Your task to perform on an android device: When is my next appointment? Image 0: 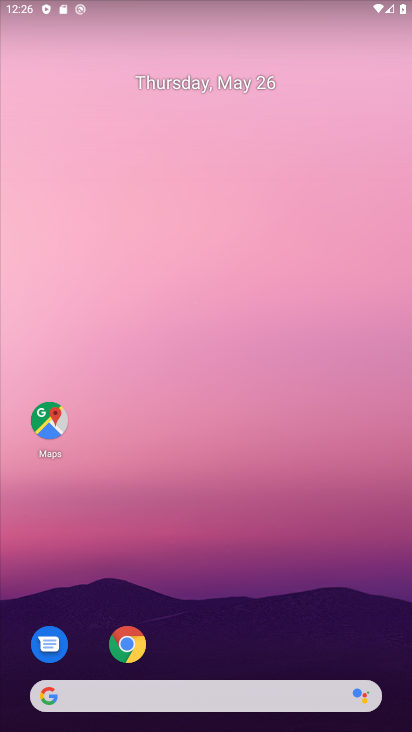
Step 0: drag from (60, 476) to (249, 115)
Your task to perform on an android device: When is my next appointment? Image 1: 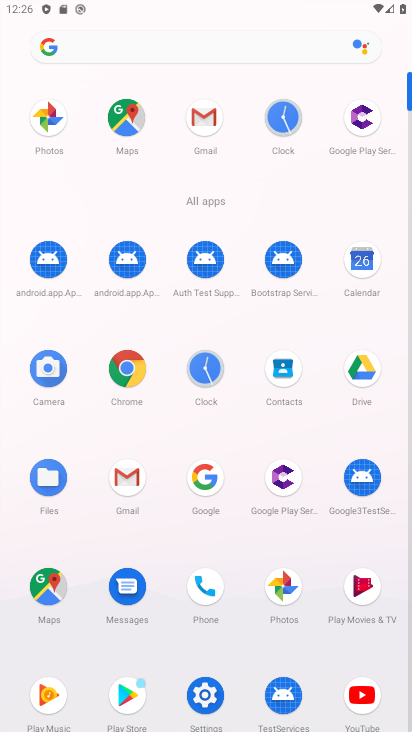
Step 1: click (371, 274)
Your task to perform on an android device: When is my next appointment? Image 2: 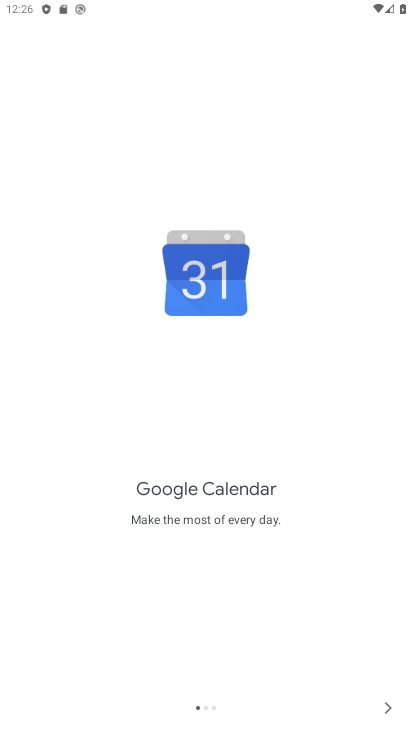
Step 2: click (387, 708)
Your task to perform on an android device: When is my next appointment? Image 3: 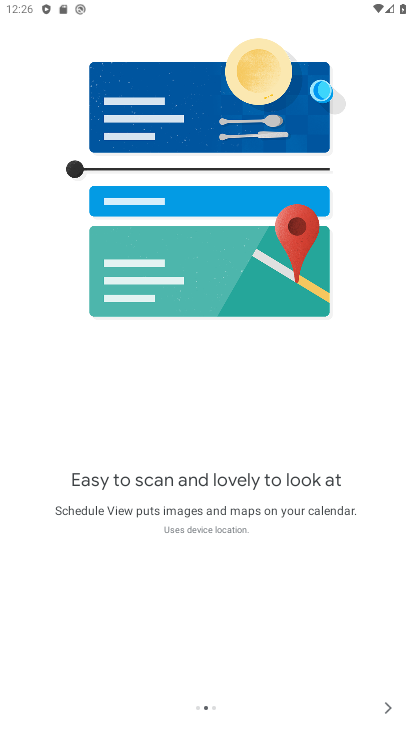
Step 3: click (387, 707)
Your task to perform on an android device: When is my next appointment? Image 4: 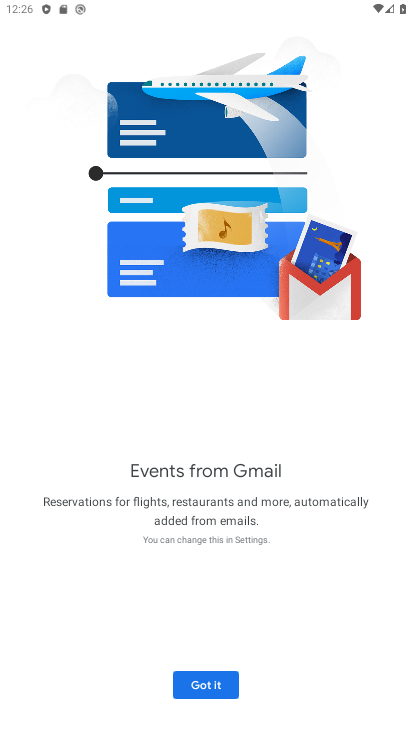
Step 4: click (214, 686)
Your task to perform on an android device: When is my next appointment? Image 5: 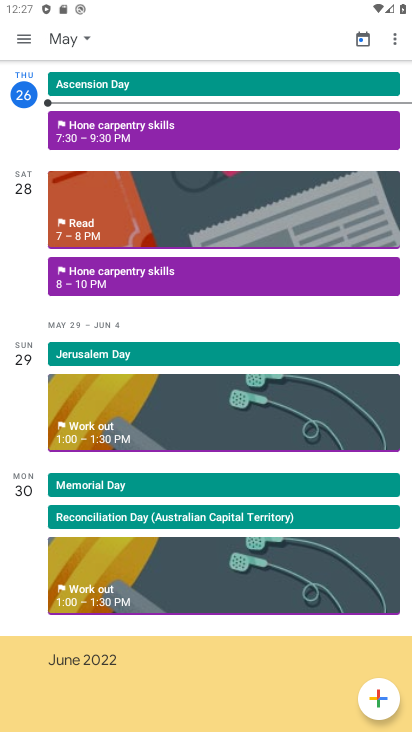
Step 5: task complete